Your task to perform on an android device: Add acer predator to the cart on costco.com Image 0: 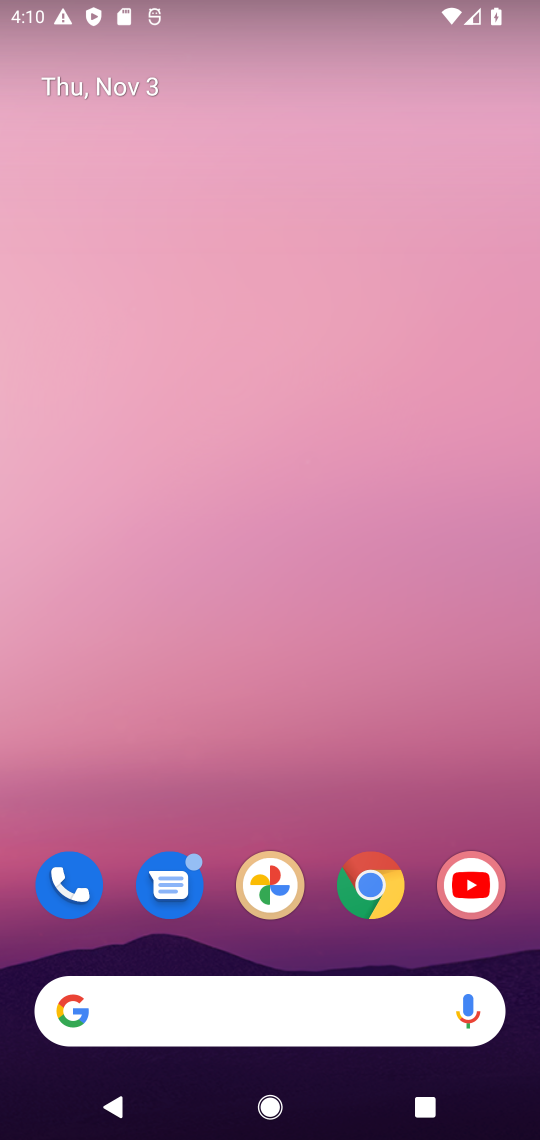
Step 0: click (378, 885)
Your task to perform on an android device: Add acer predator to the cart on costco.com Image 1: 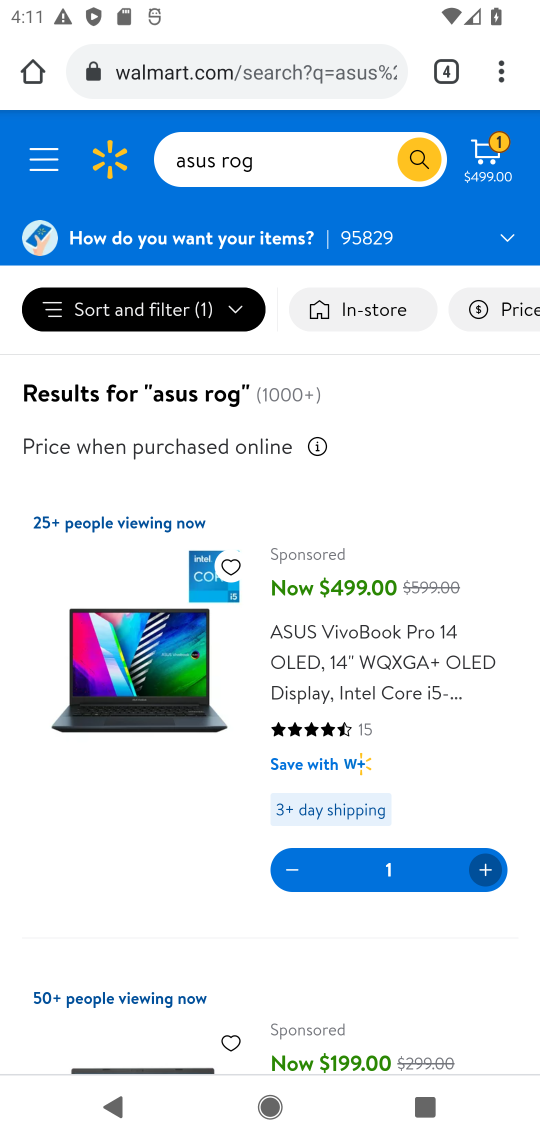
Step 1: click (449, 75)
Your task to perform on an android device: Add acer predator to the cart on costco.com Image 2: 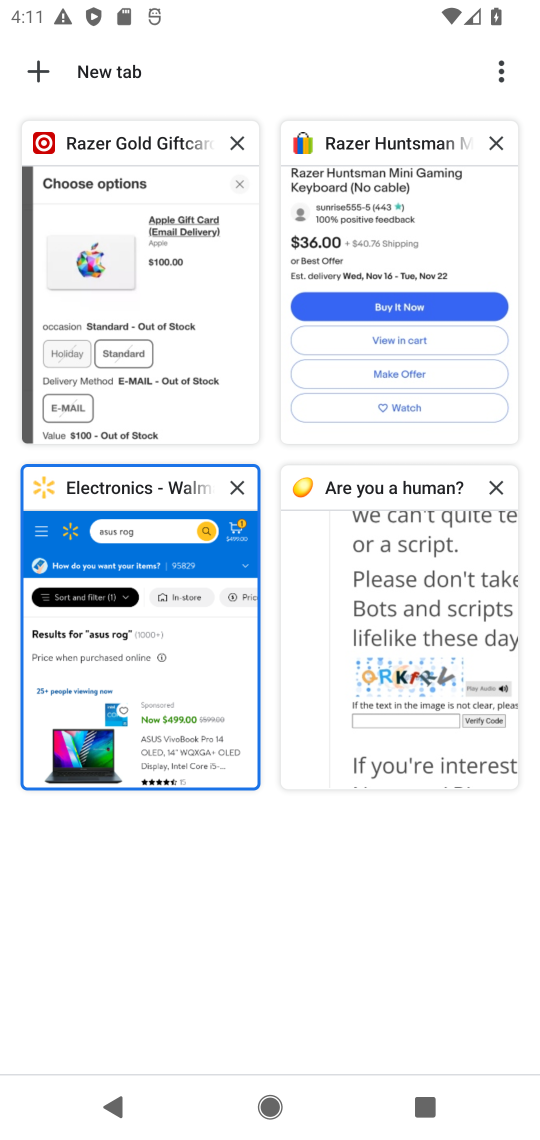
Step 2: click (35, 76)
Your task to perform on an android device: Add acer predator to the cart on costco.com Image 3: 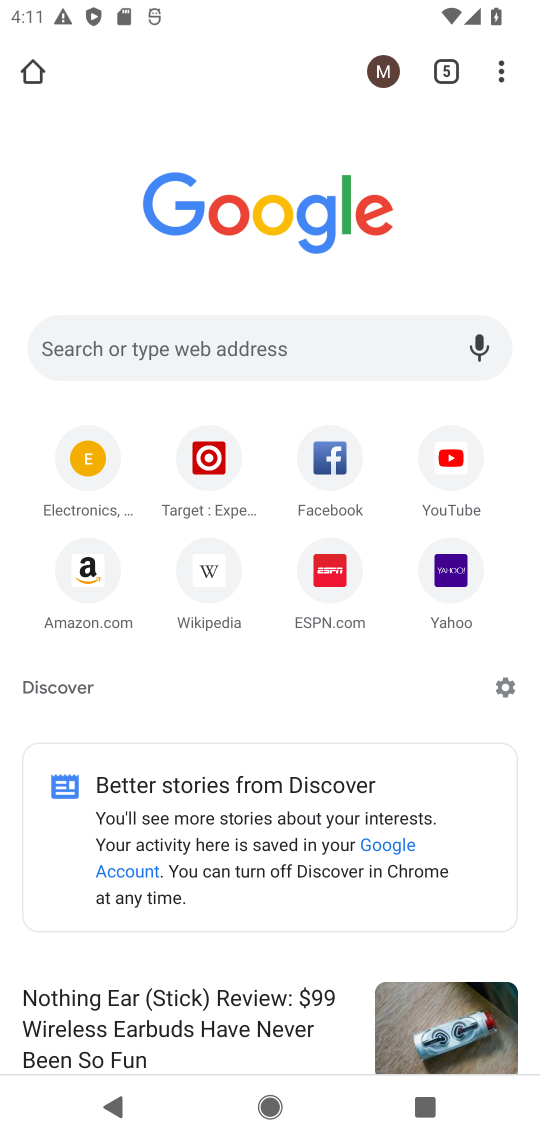
Step 3: click (177, 354)
Your task to perform on an android device: Add acer predator to the cart on costco.com Image 4: 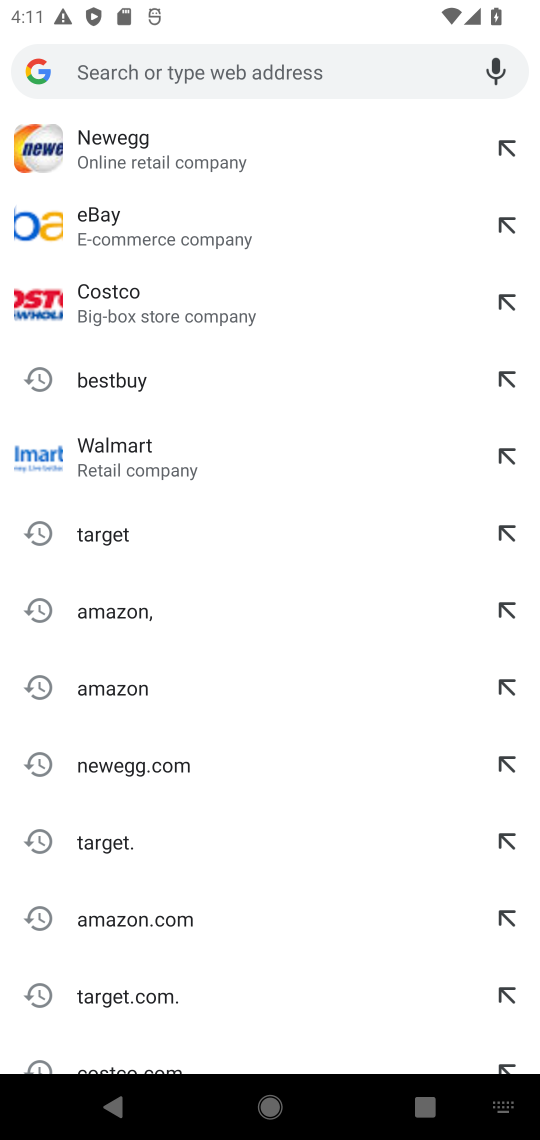
Step 4: type "acer predator"
Your task to perform on an android device: Add acer predator to the cart on costco.com Image 5: 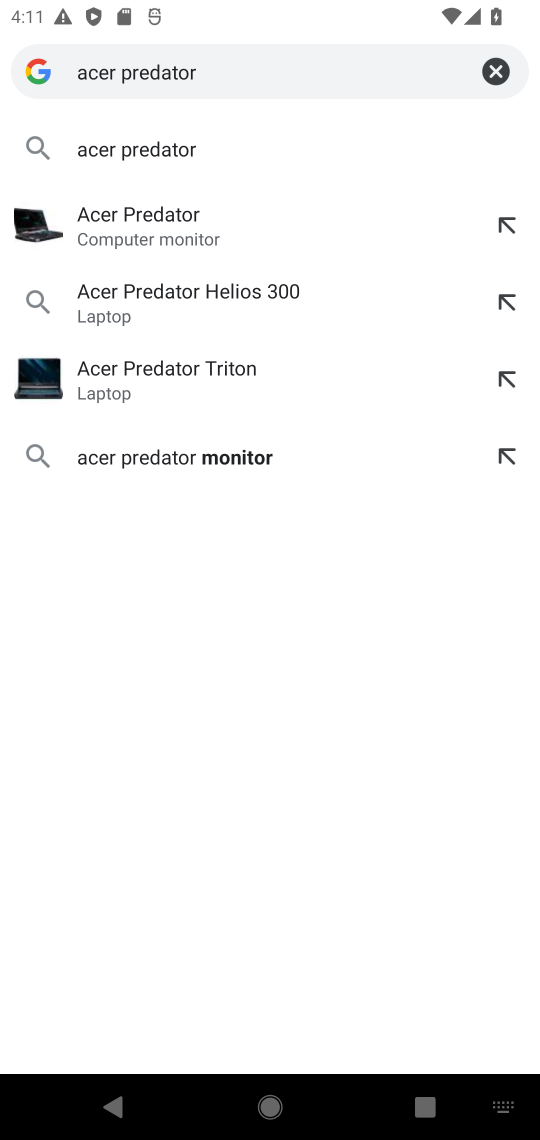
Step 5: click (491, 67)
Your task to perform on an android device: Add acer predator to the cart on costco.com Image 6: 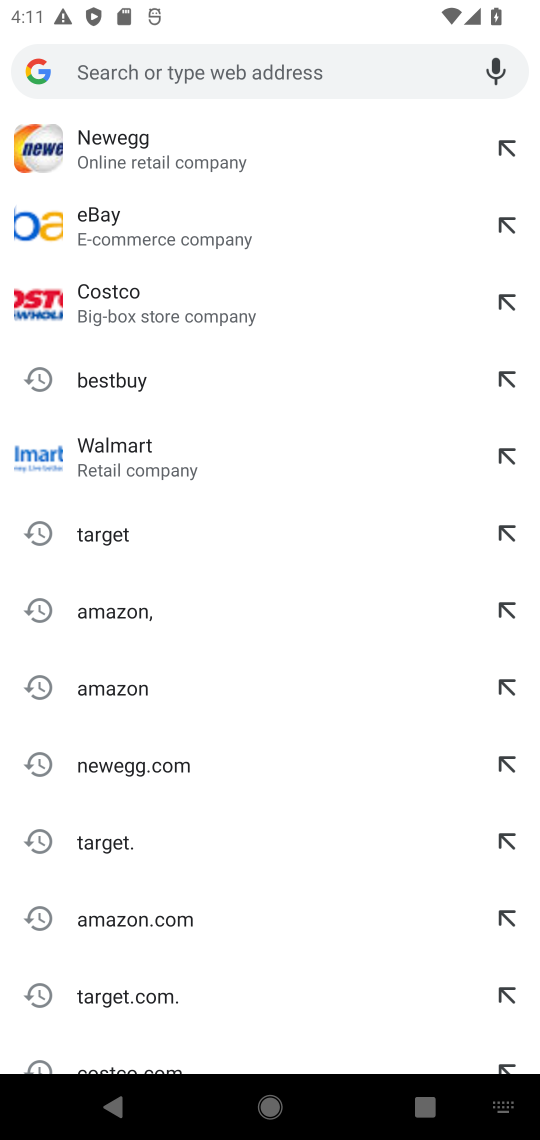
Step 6: click (119, 311)
Your task to perform on an android device: Add acer predator to the cart on costco.com Image 7: 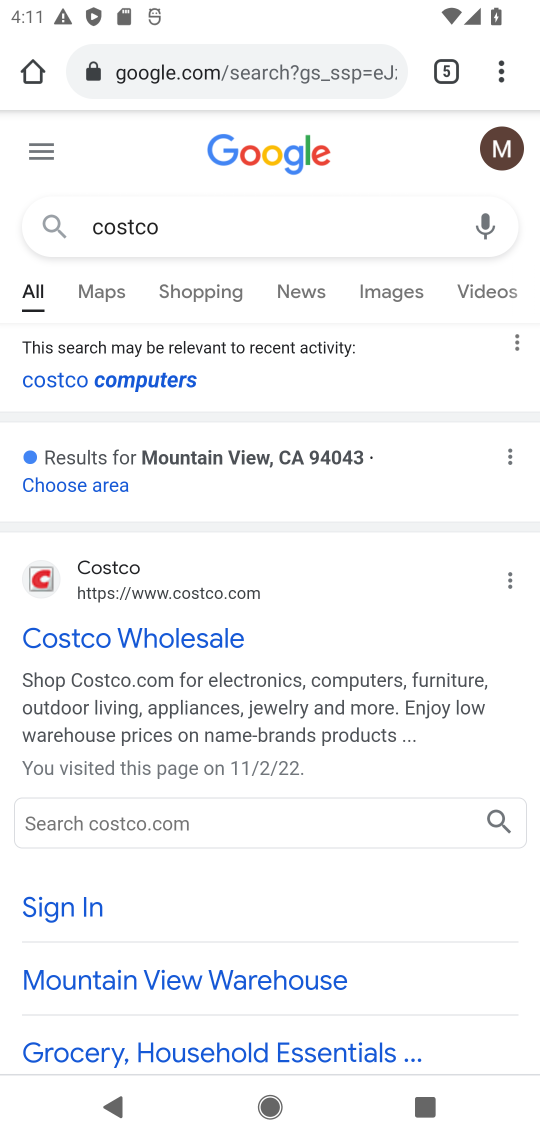
Step 7: click (71, 827)
Your task to perform on an android device: Add acer predator to the cart on costco.com Image 8: 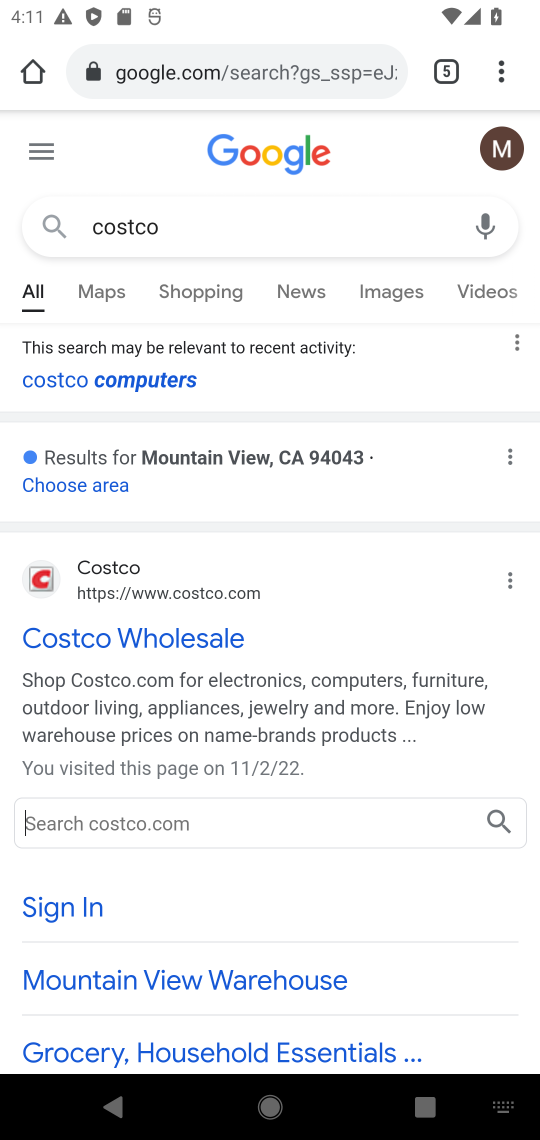
Step 8: type "acer predator"
Your task to perform on an android device: Add acer predator to the cart on costco.com Image 9: 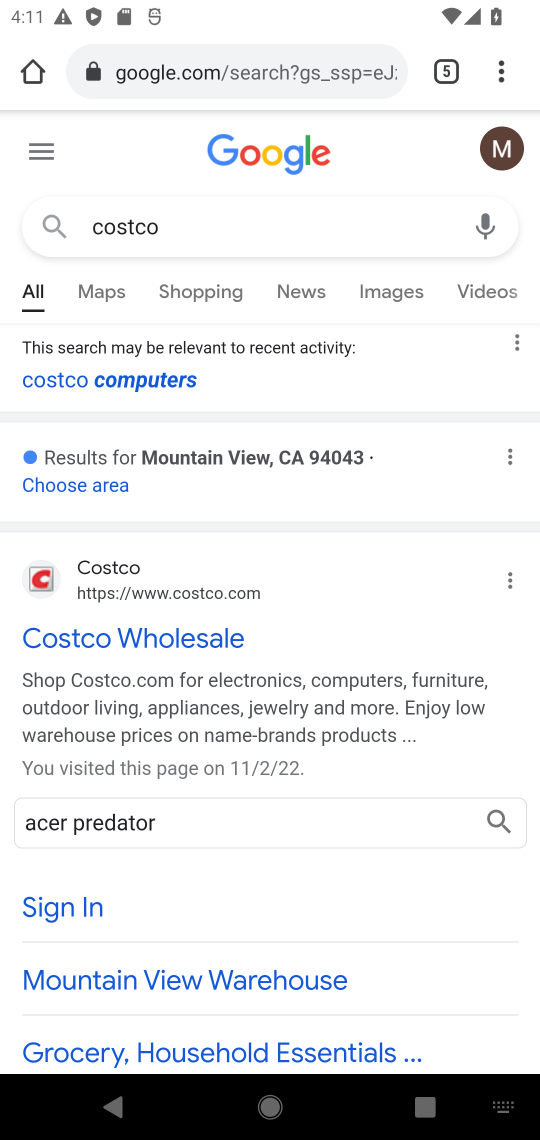
Step 9: click (504, 818)
Your task to perform on an android device: Add acer predator to the cart on costco.com Image 10: 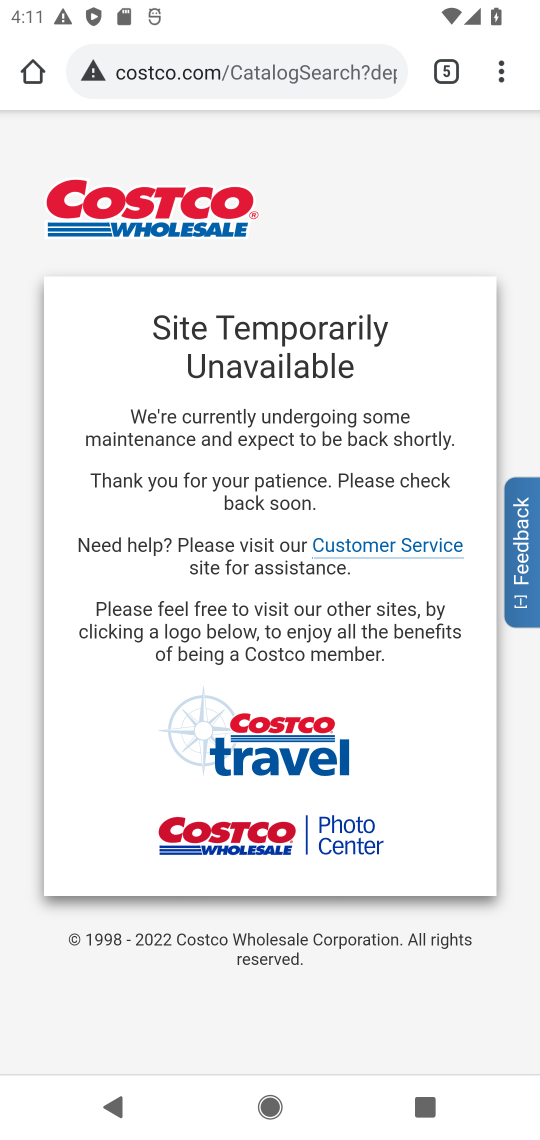
Step 10: task complete